Your task to perform on an android device: move a message to another label in the gmail app Image 0: 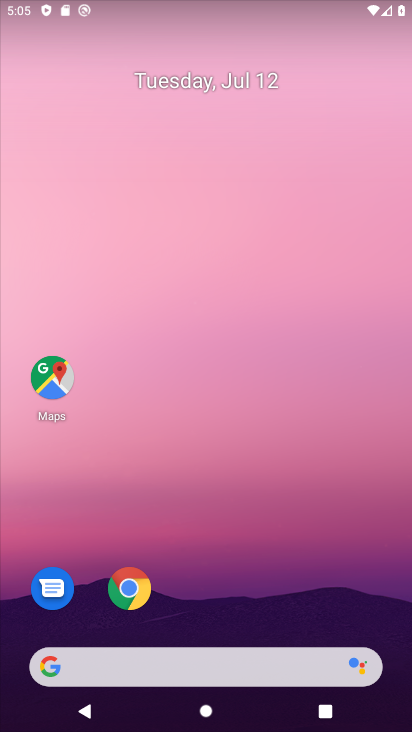
Step 0: drag from (190, 581) to (235, 194)
Your task to perform on an android device: move a message to another label in the gmail app Image 1: 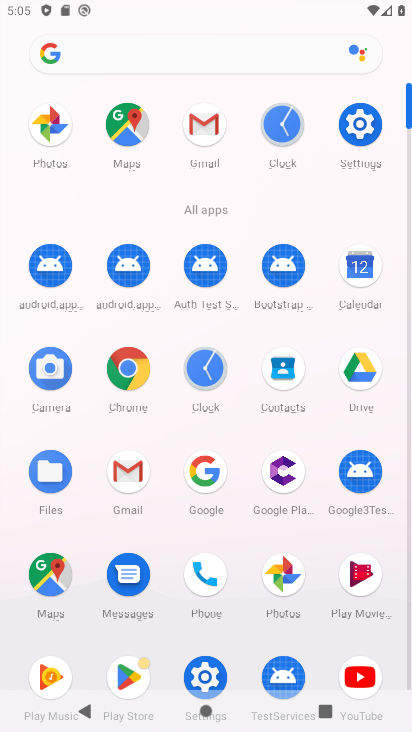
Step 1: click (213, 116)
Your task to perform on an android device: move a message to another label in the gmail app Image 2: 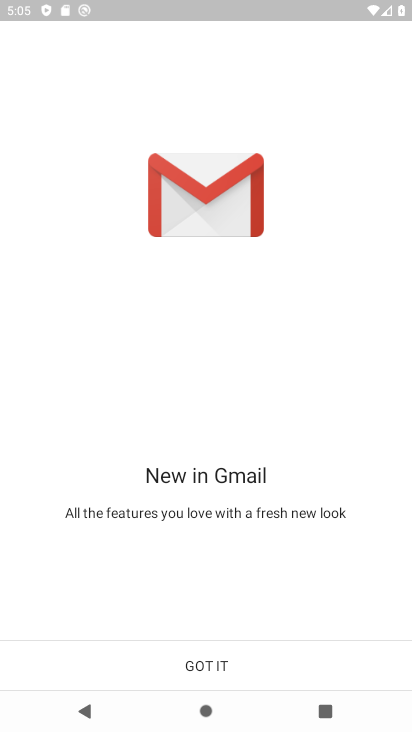
Step 2: click (232, 664)
Your task to perform on an android device: move a message to another label in the gmail app Image 3: 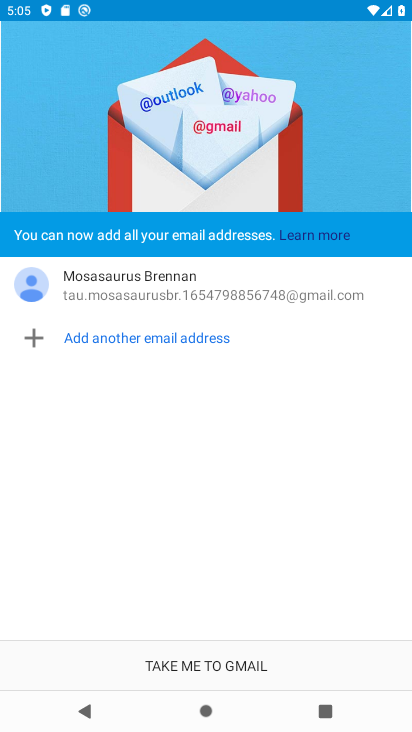
Step 3: click (229, 654)
Your task to perform on an android device: move a message to another label in the gmail app Image 4: 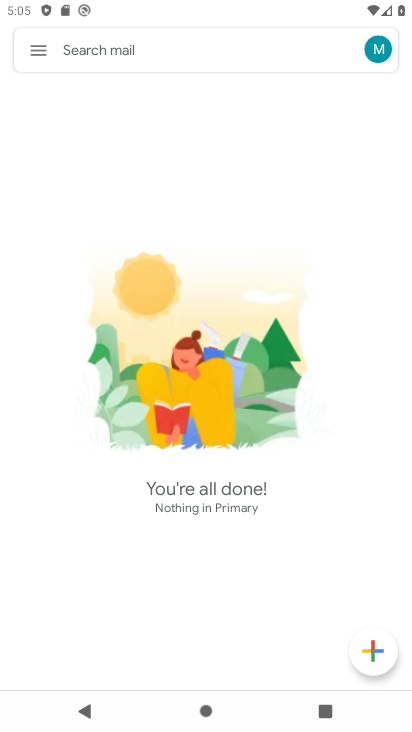
Step 4: task complete